Your task to perform on an android device: Open calendar and show me the third week of next month Image 0: 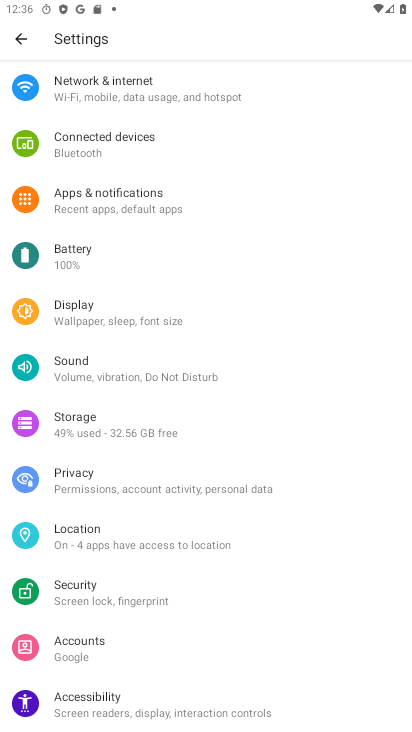
Step 0: drag from (183, 614) to (268, 217)
Your task to perform on an android device: Open calendar and show me the third week of next month Image 1: 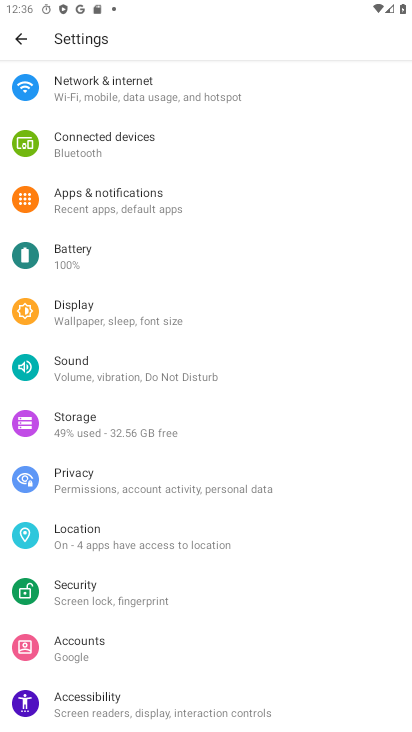
Step 1: drag from (234, 605) to (271, 207)
Your task to perform on an android device: Open calendar and show me the third week of next month Image 2: 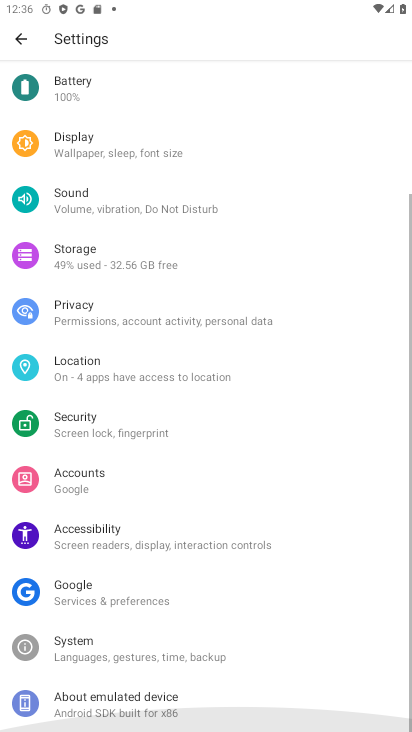
Step 2: drag from (249, 217) to (174, 713)
Your task to perform on an android device: Open calendar and show me the third week of next month Image 3: 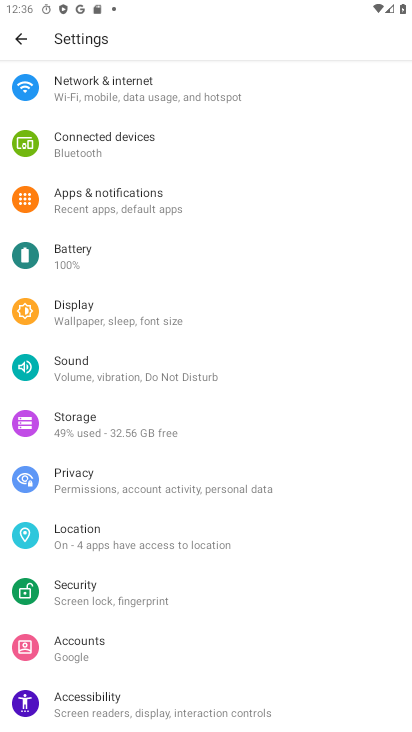
Step 3: press home button
Your task to perform on an android device: Open calendar and show me the third week of next month Image 4: 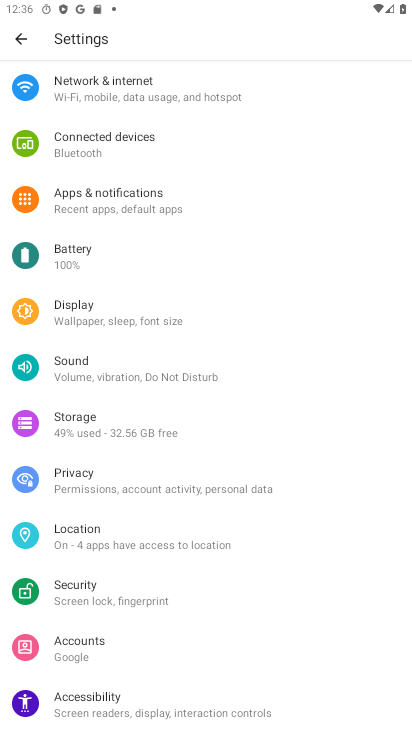
Step 4: drag from (220, 521) to (251, 248)
Your task to perform on an android device: Open calendar and show me the third week of next month Image 5: 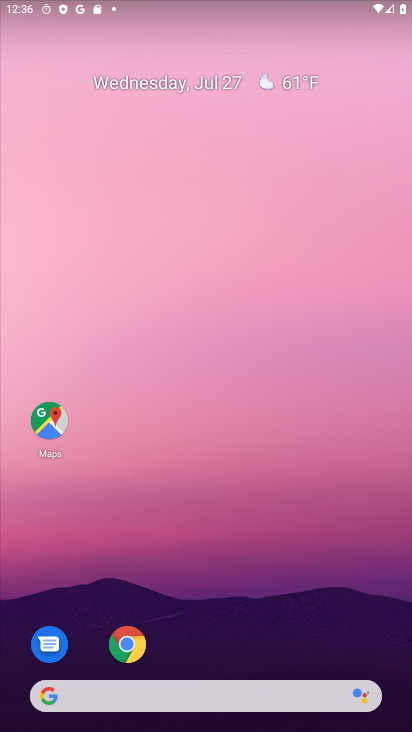
Step 5: drag from (224, 409) to (274, 146)
Your task to perform on an android device: Open calendar and show me the third week of next month Image 6: 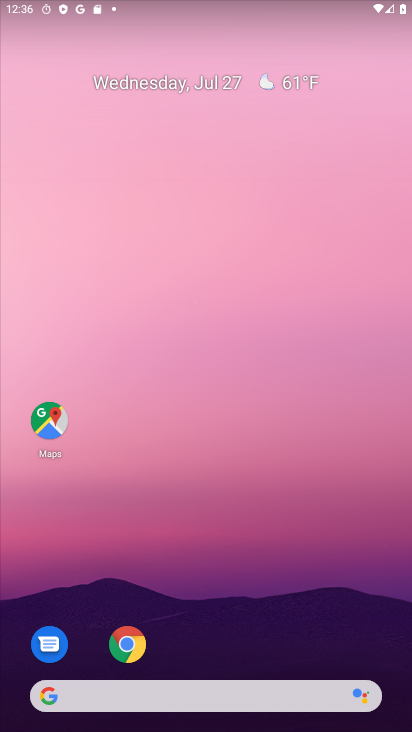
Step 6: drag from (181, 652) to (328, 156)
Your task to perform on an android device: Open calendar and show me the third week of next month Image 7: 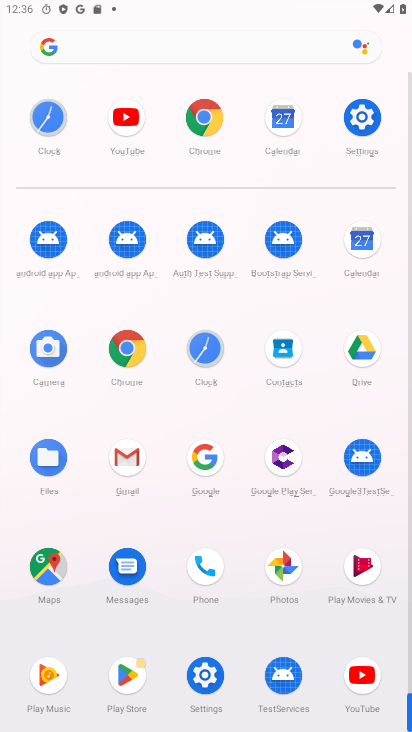
Step 7: click (355, 240)
Your task to perform on an android device: Open calendar and show me the third week of next month Image 8: 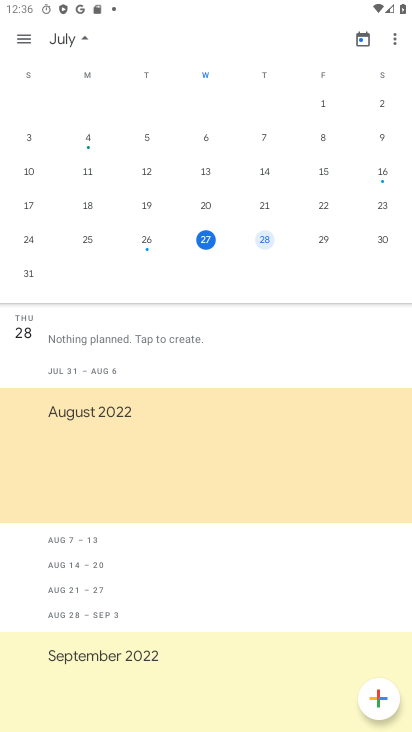
Step 8: drag from (347, 189) to (0, 226)
Your task to perform on an android device: Open calendar and show me the third week of next month Image 9: 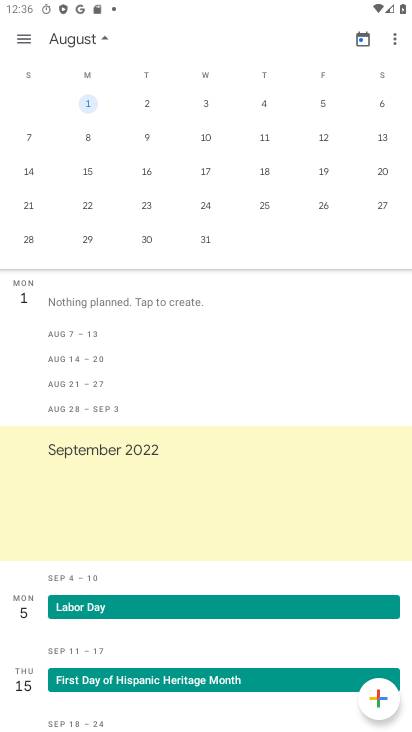
Step 9: click (205, 177)
Your task to perform on an android device: Open calendar and show me the third week of next month Image 10: 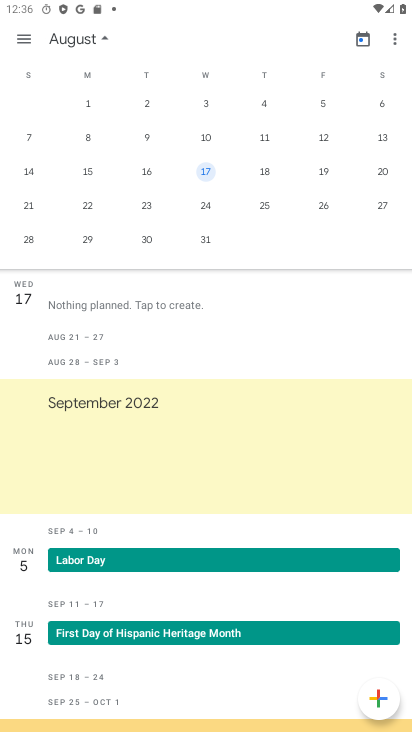
Step 10: task complete